Your task to perform on an android device: Go to location settings Image 0: 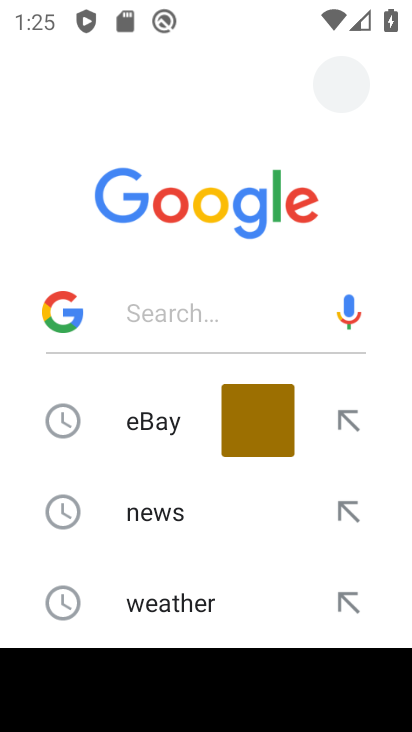
Step 0: press home button
Your task to perform on an android device: Go to location settings Image 1: 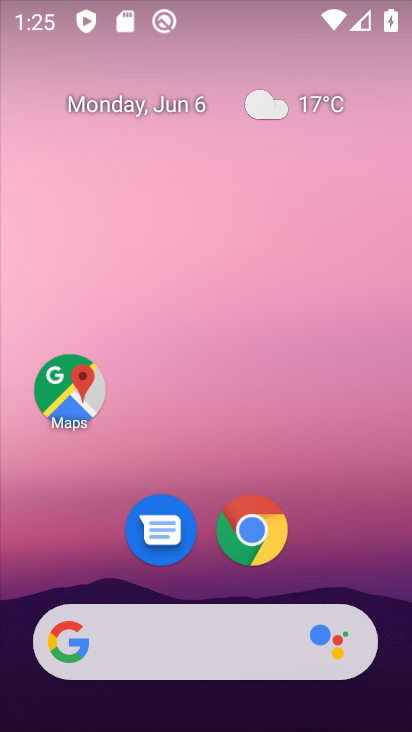
Step 1: click (250, 574)
Your task to perform on an android device: Go to location settings Image 2: 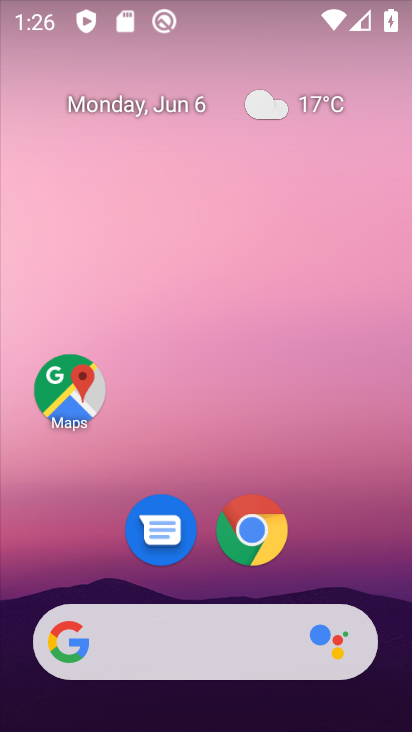
Step 2: drag from (213, 572) to (225, 170)
Your task to perform on an android device: Go to location settings Image 3: 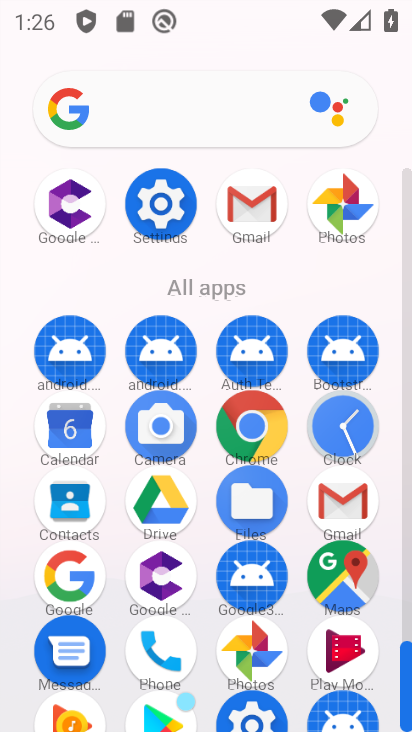
Step 3: click (161, 186)
Your task to perform on an android device: Go to location settings Image 4: 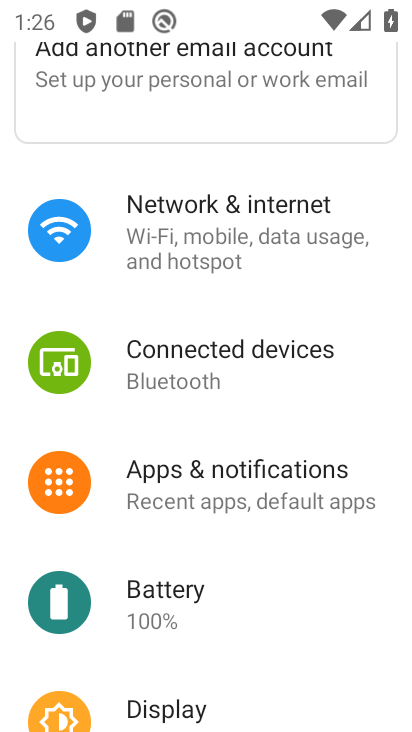
Step 4: drag from (228, 607) to (252, 227)
Your task to perform on an android device: Go to location settings Image 5: 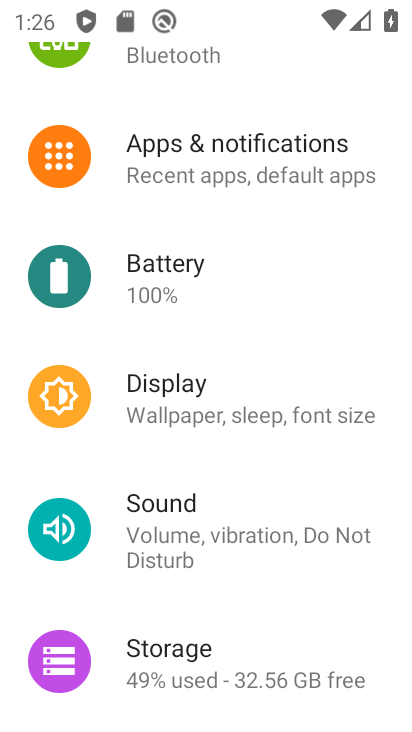
Step 5: drag from (206, 598) to (207, 280)
Your task to perform on an android device: Go to location settings Image 6: 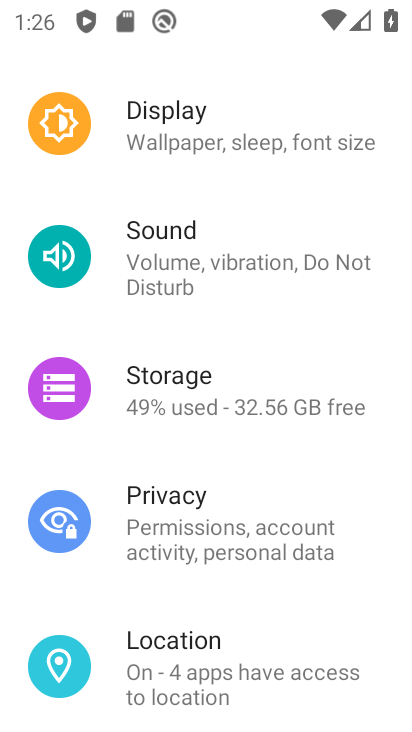
Step 6: click (195, 660)
Your task to perform on an android device: Go to location settings Image 7: 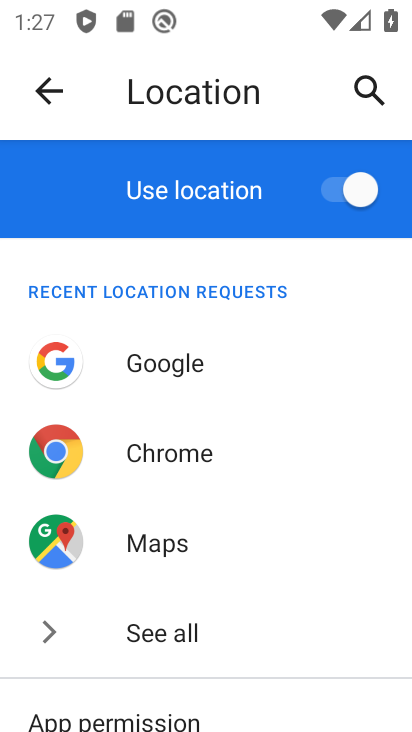
Step 7: task complete